Your task to perform on an android device: Find coffee shops on Maps Image 0: 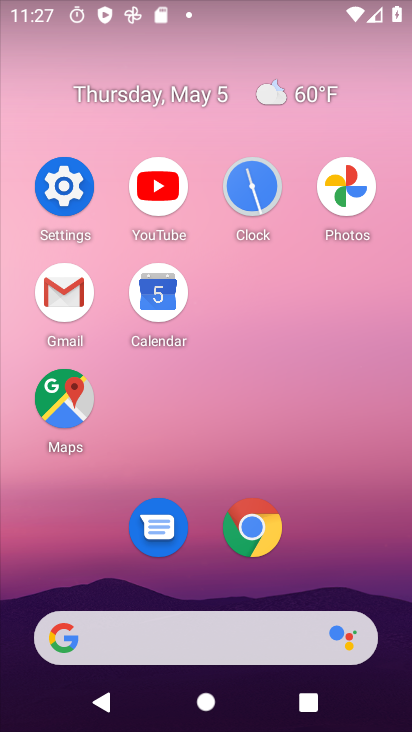
Step 0: click (53, 421)
Your task to perform on an android device: Find coffee shops on Maps Image 1: 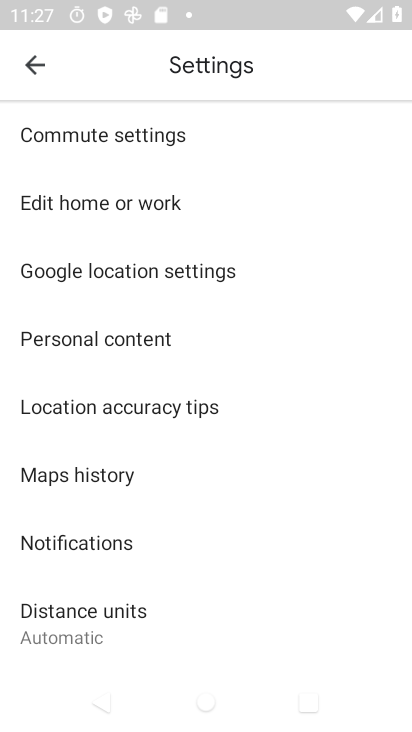
Step 1: click (49, 77)
Your task to perform on an android device: Find coffee shops on Maps Image 2: 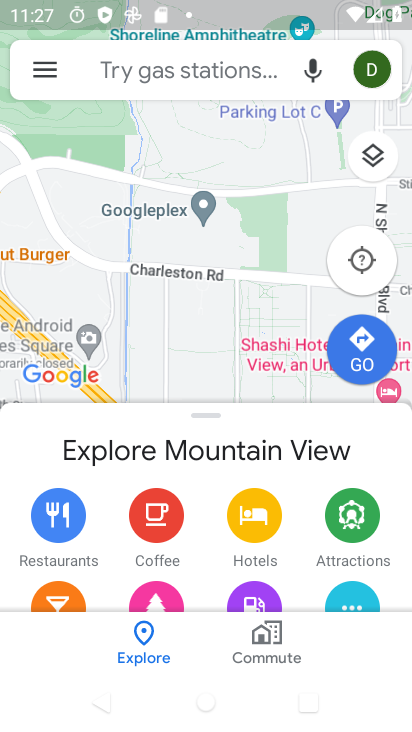
Step 2: click (179, 78)
Your task to perform on an android device: Find coffee shops on Maps Image 3: 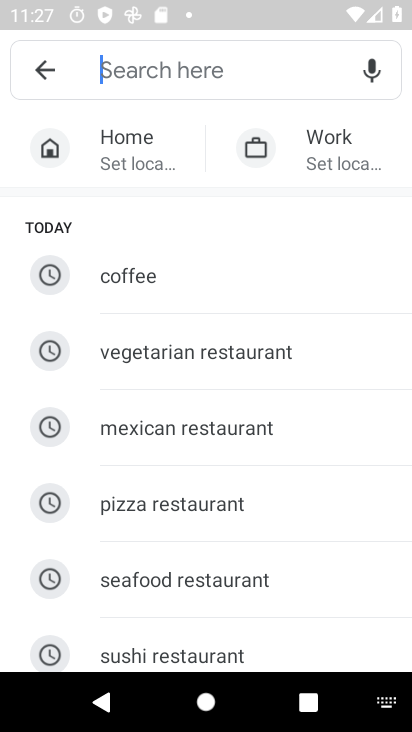
Step 3: type "coffee shops"
Your task to perform on an android device: Find coffee shops on Maps Image 4: 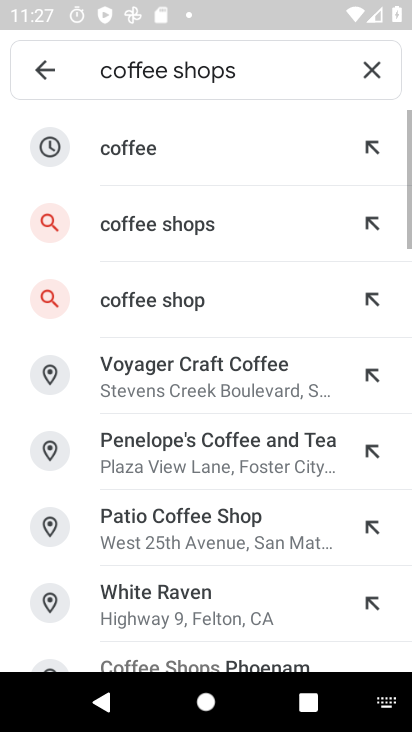
Step 4: task complete